Your task to perform on an android device: Set the phone to "Do not disturb". Image 0: 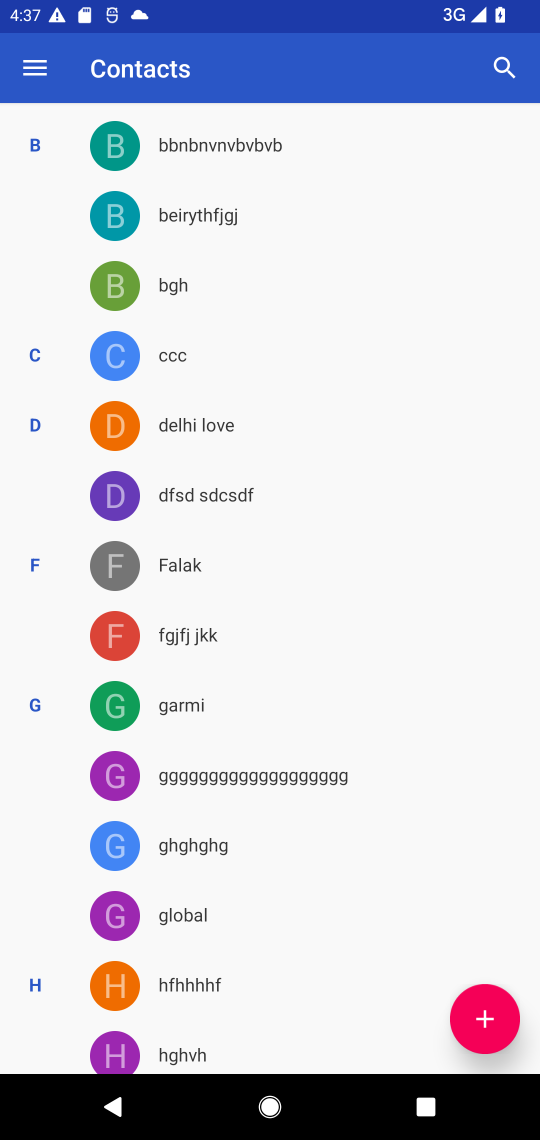
Step 0: press home button
Your task to perform on an android device: Set the phone to "Do not disturb". Image 1: 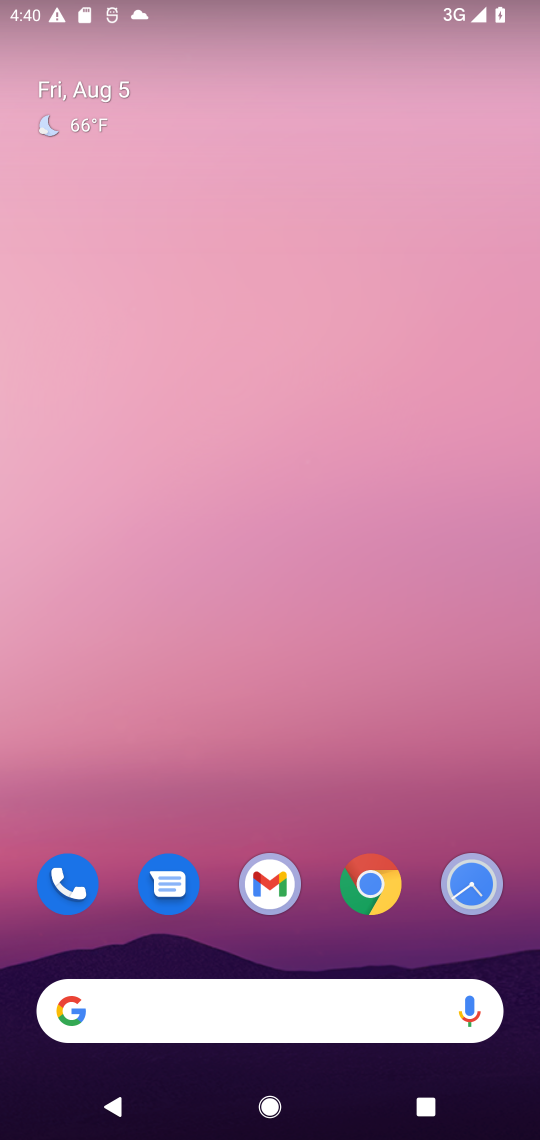
Step 1: drag from (268, 17) to (376, 858)
Your task to perform on an android device: Set the phone to "Do not disturb". Image 2: 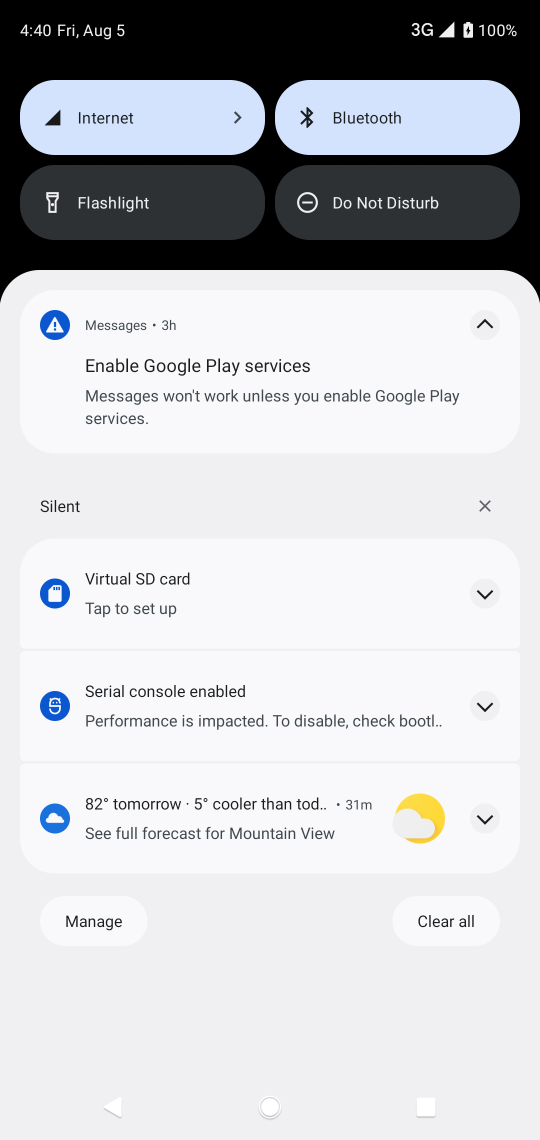
Step 2: drag from (291, 241) to (309, 915)
Your task to perform on an android device: Set the phone to "Do not disturb". Image 3: 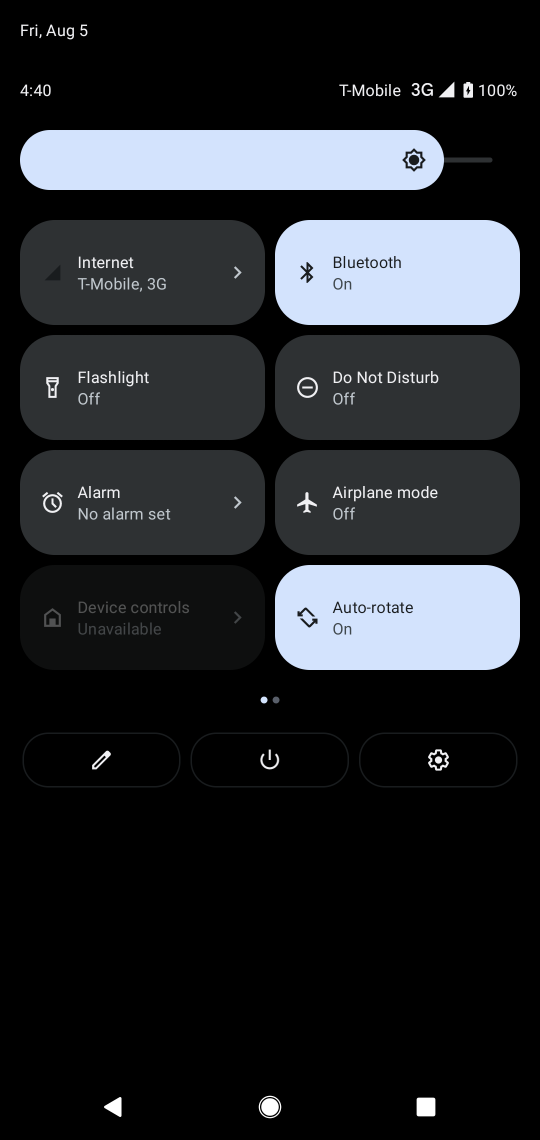
Step 3: click (416, 368)
Your task to perform on an android device: Set the phone to "Do not disturb". Image 4: 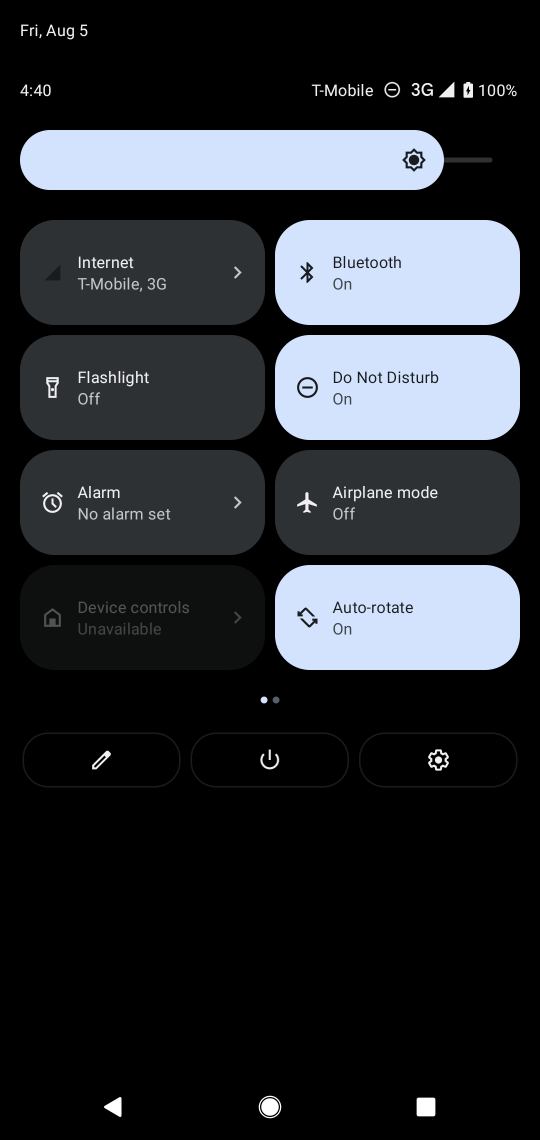
Step 4: task complete